Your task to perform on an android device: change notifications settings Image 0: 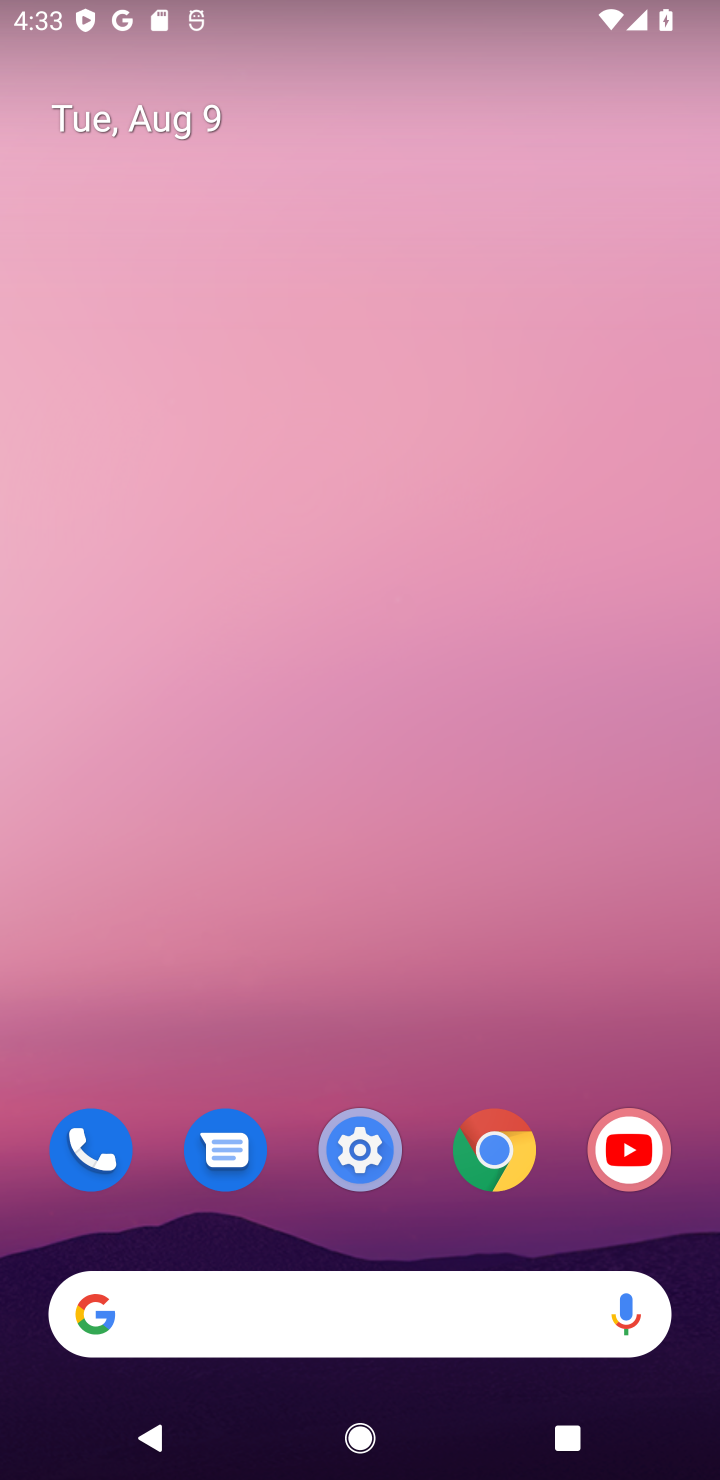
Step 0: drag from (366, 1256) to (299, 951)
Your task to perform on an android device: change notifications settings Image 1: 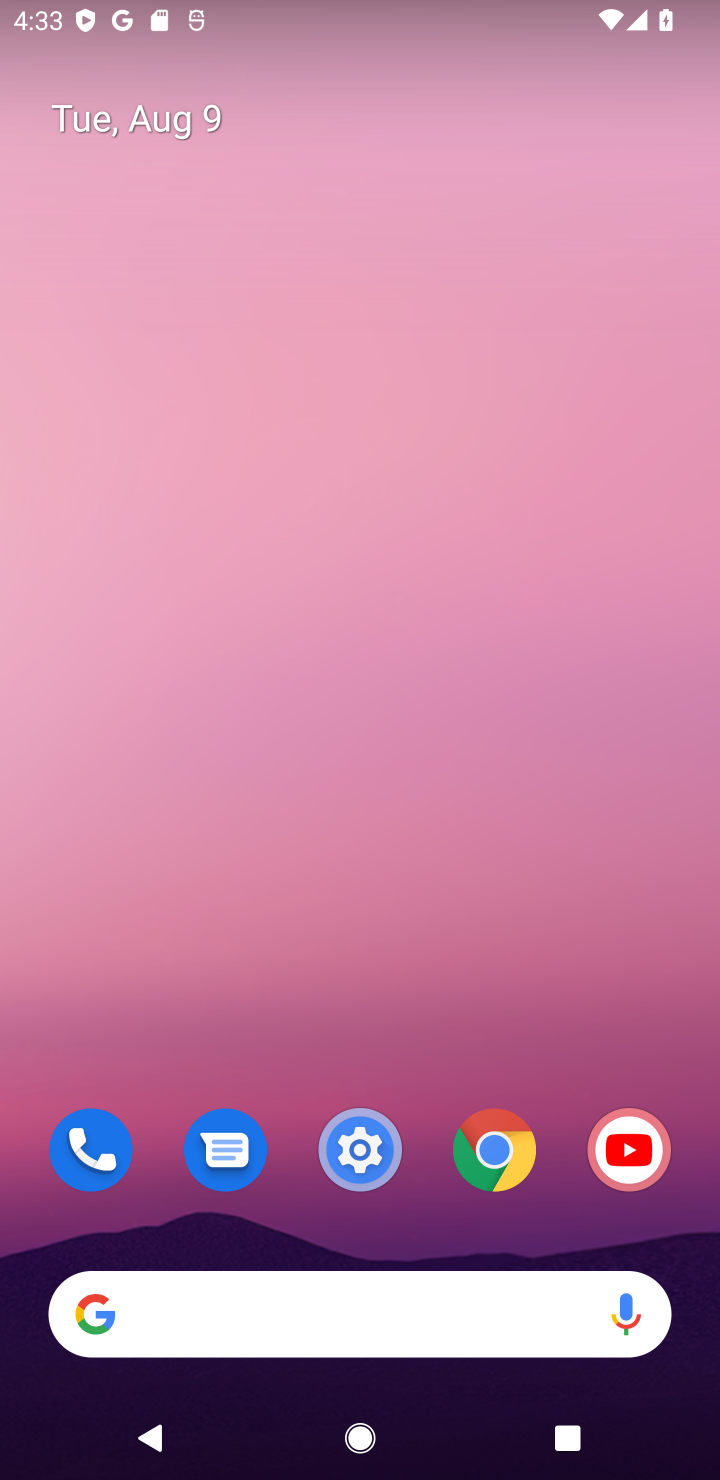
Step 1: click (354, 1150)
Your task to perform on an android device: change notifications settings Image 2: 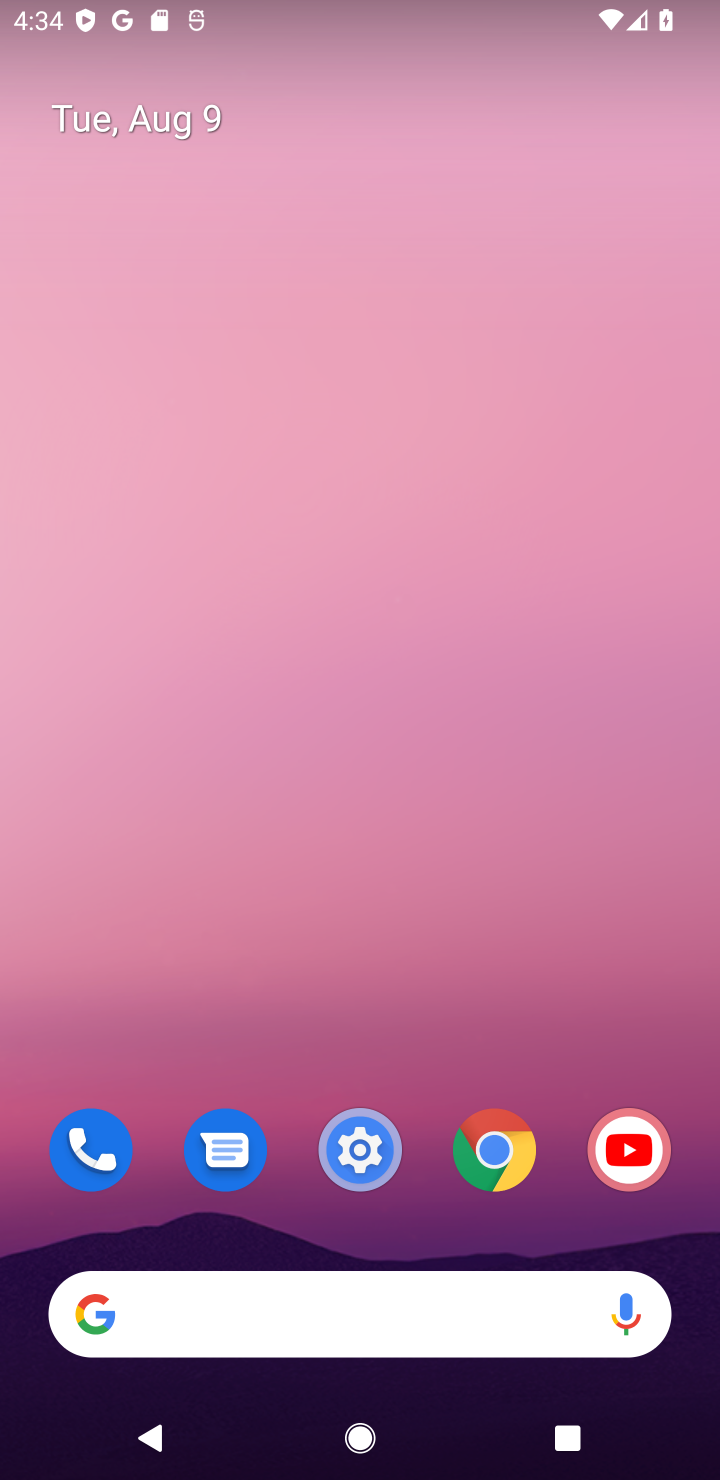
Step 2: click (368, 1180)
Your task to perform on an android device: change notifications settings Image 3: 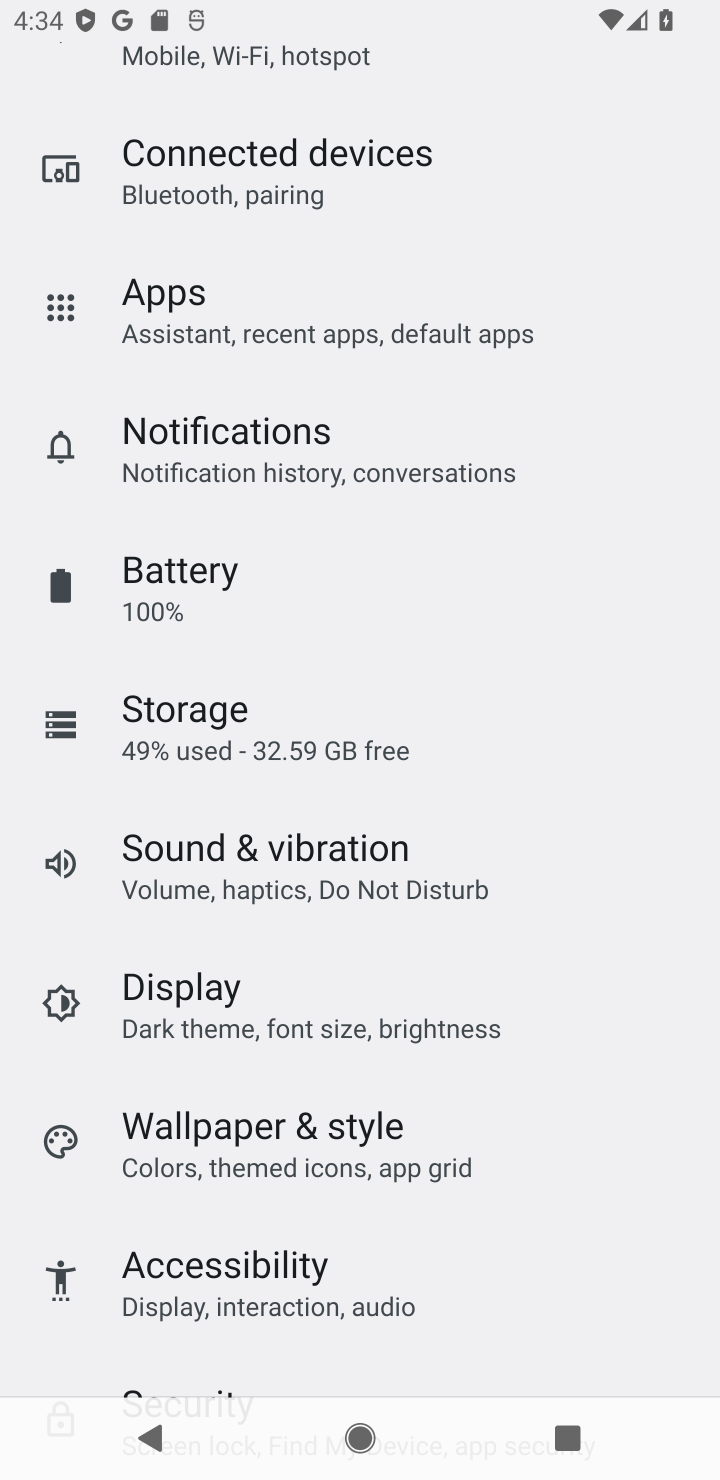
Step 3: click (282, 441)
Your task to perform on an android device: change notifications settings Image 4: 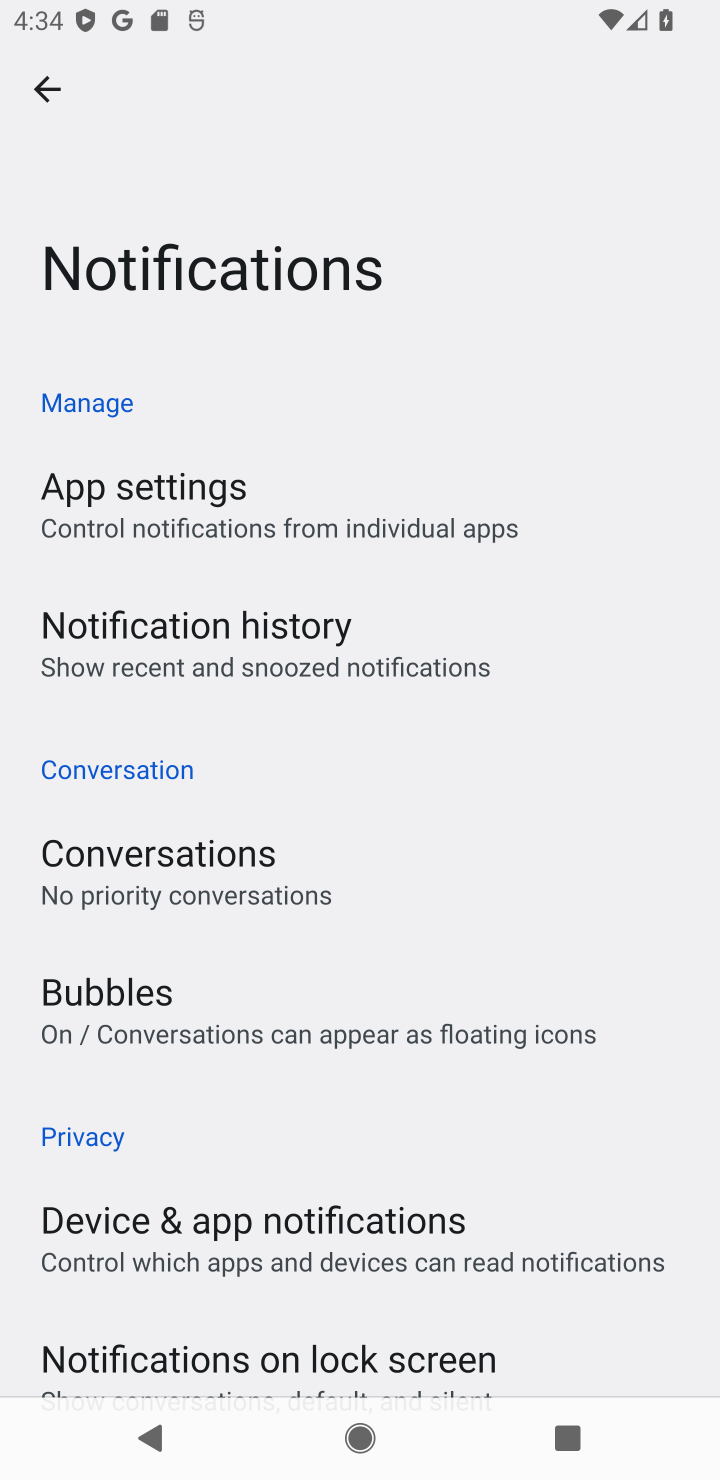
Step 4: task complete